Your task to perform on an android device: Open ESPN.com Image 0: 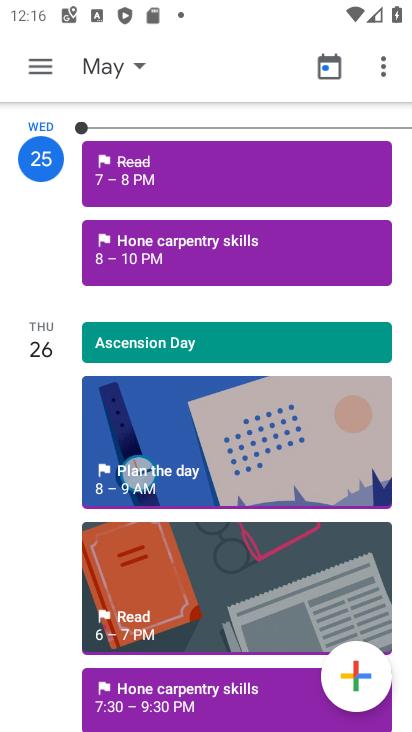
Step 0: press home button
Your task to perform on an android device: Open ESPN.com Image 1: 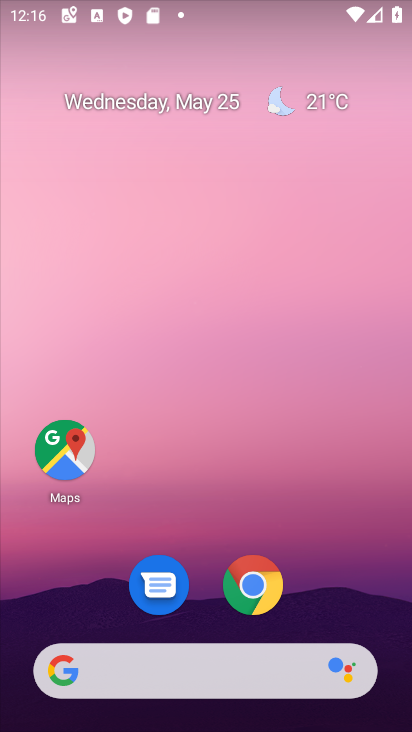
Step 1: click (188, 670)
Your task to perform on an android device: Open ESPN.com Image 2: 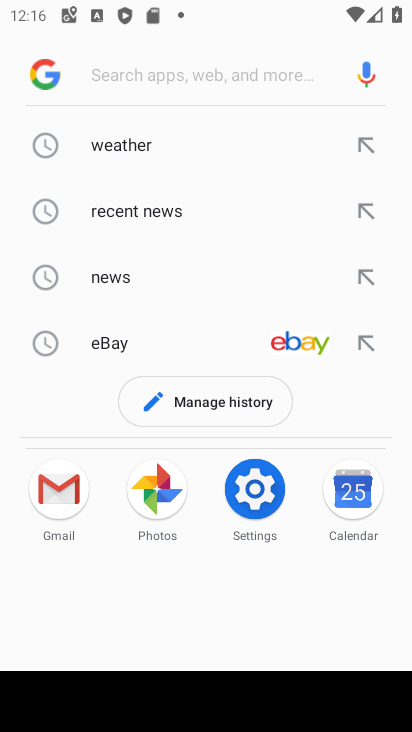
Step 2: type "espn.com"
Your task to perform on an android device: Open ESPN.com Image 3: 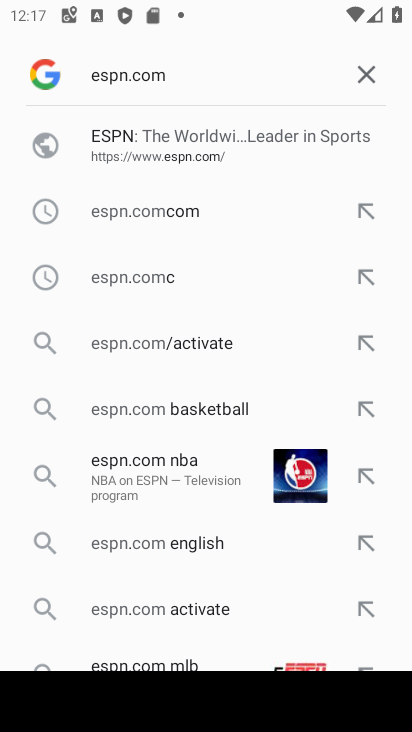
Step 3: click (107, 132)
Your task to perform on an android device: Open ESPN.com Image 4: 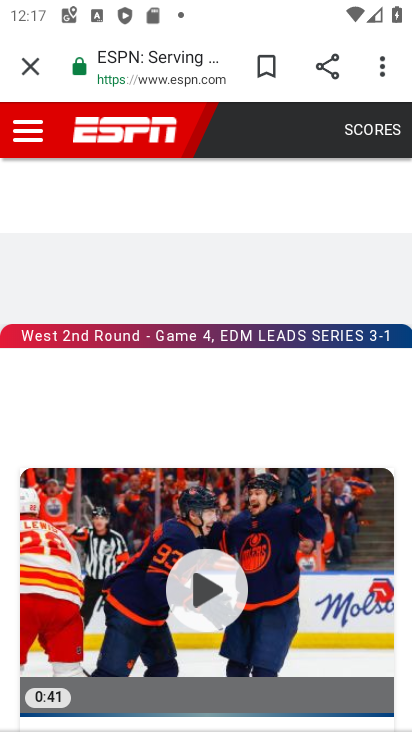
Step 4: task complete